Your task to perform on an android device: find photos in the google photos app Image 0: 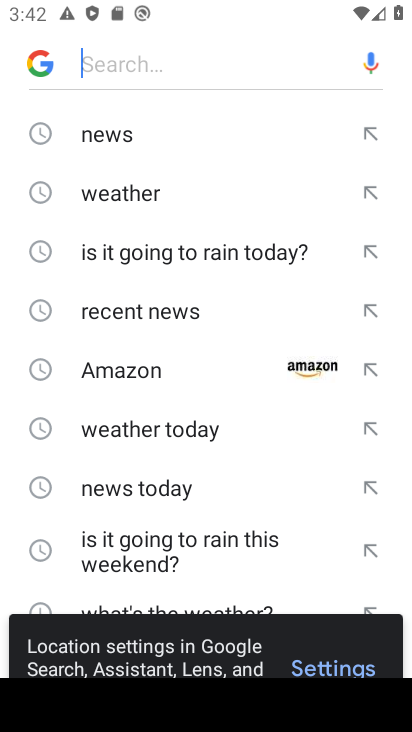
Step 0: press home button
Your task to perform on an android device: find photos in the google photos app Image 1: 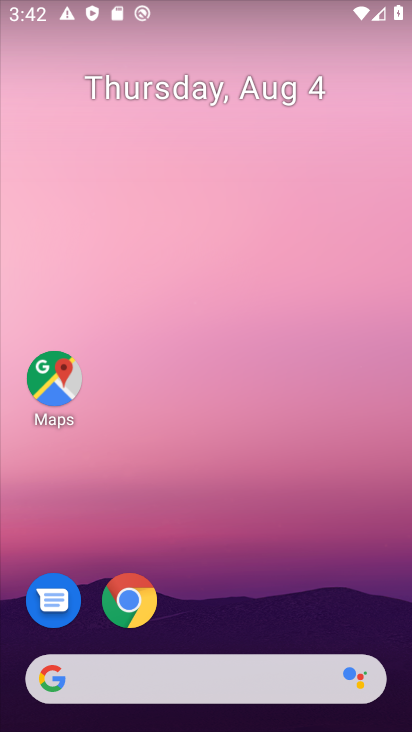
Step 1: drag from (282, 547) to (327, 165)
Your task to perform on an android device: find photos in the google photos app Image 2: 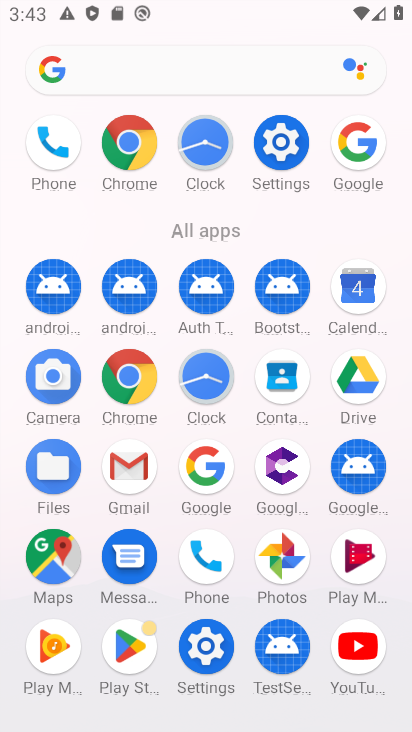
Step 2: click (275, 563)
Your task to perform on an android device: find photos in the google photos app Image 3: 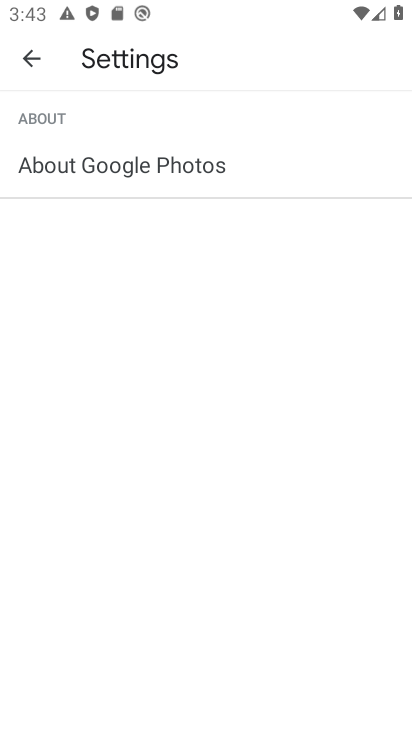
Step 3: click (38, 63)
Your task to perform on an android device: find photos in the google photos app Image 4: 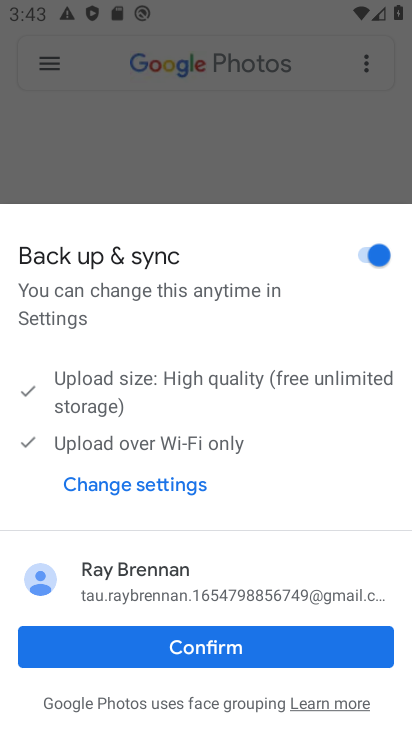
Step 4: click (267, 648)
Your task to perform on an android device: find photos in the google photos app Image 5: 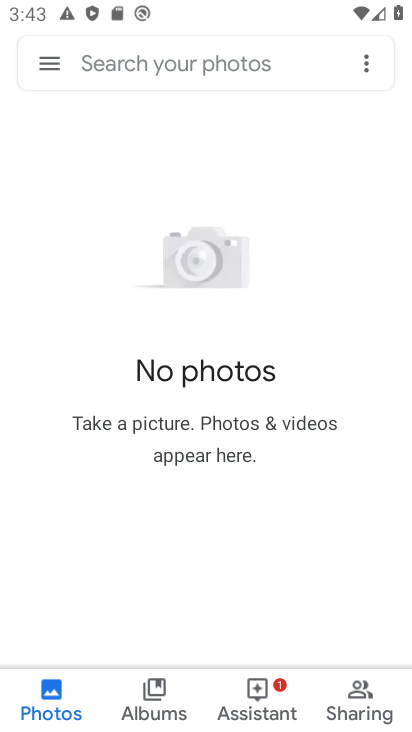
Step 5: task complete